Your task to perform on an android device: Open Chrome and go to the settings page Image 0: 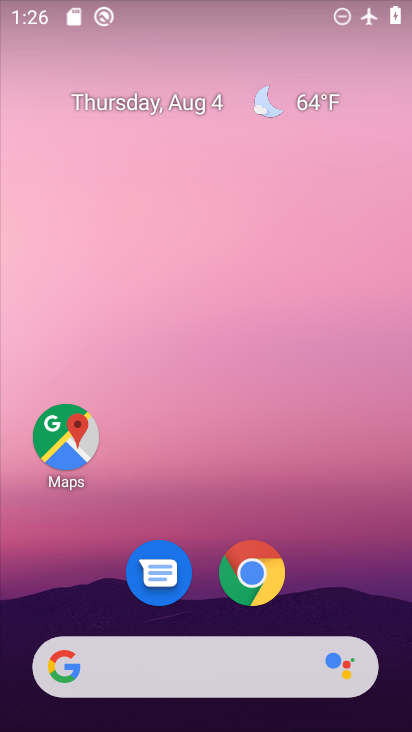
Step 0: drag from (332, 589) to (308, 48)
Your task to perform on an android device: Open Chrome and go to the settings page Image 1: 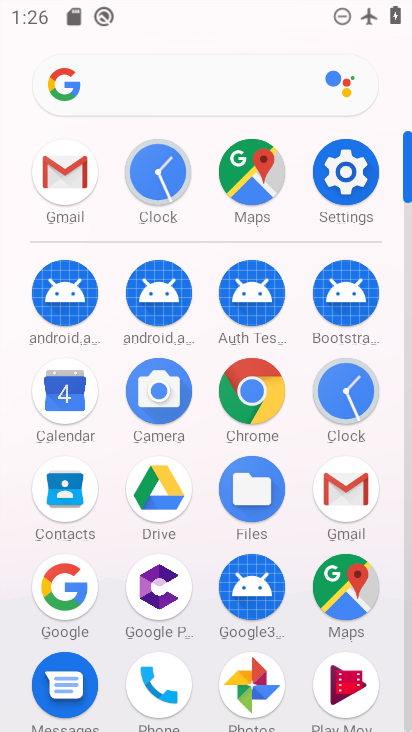
Step 1: click (262, 400)
Your task to perform on an android device: Open Chrome and go to the settings page Image 2: 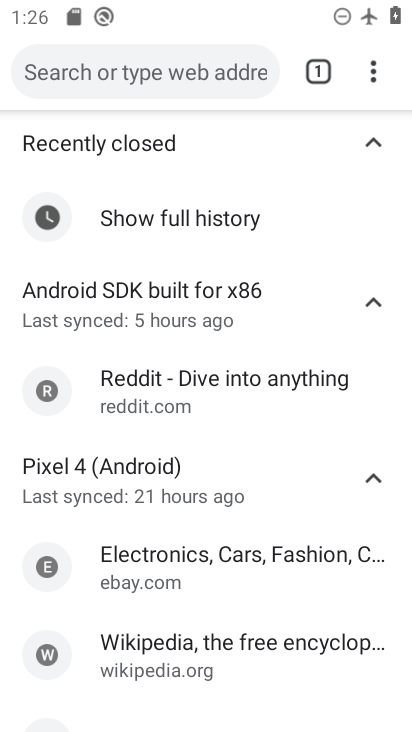
Step 2: task complete